Your task to perform on an android device: delete location history Image 0: 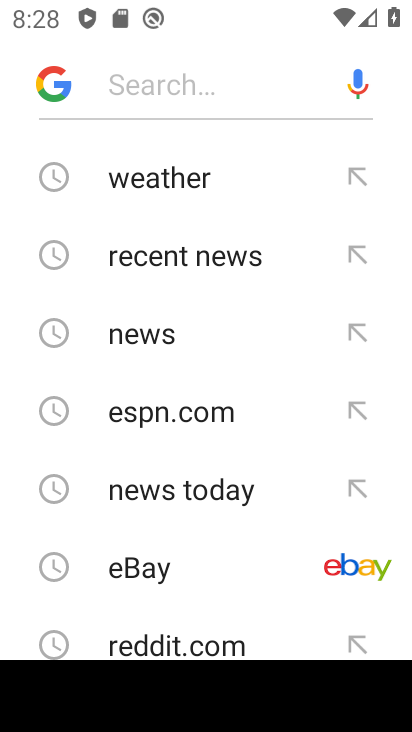
Step 0: press home button
Your task to perform on an android device: delete location history Image 1: 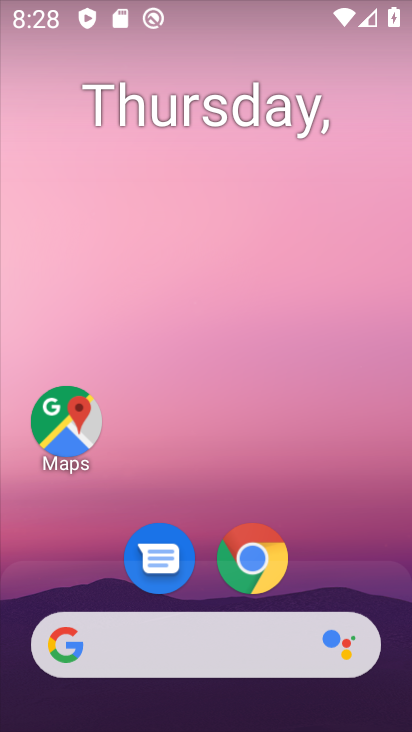
Step 1: click (56, 425)
Your task to perform on an android device: delete location history Image 2: 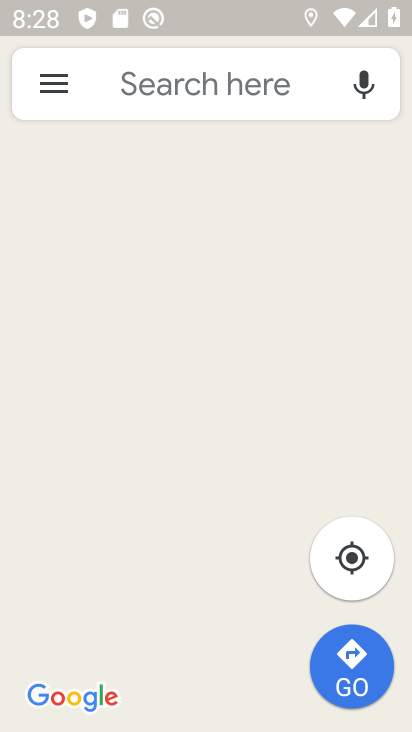
Step 2: click (61, 82)
Your task to perform on an android device: delete location history Image 3: 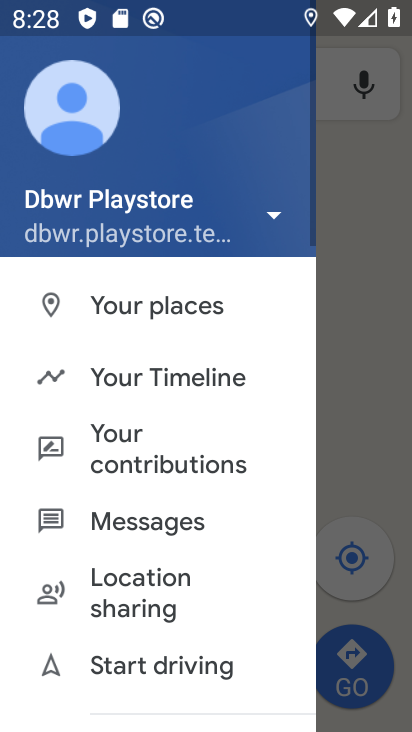
Step 3: click (142, 376)
Your task to perform on an android device: delete location history Image 4: 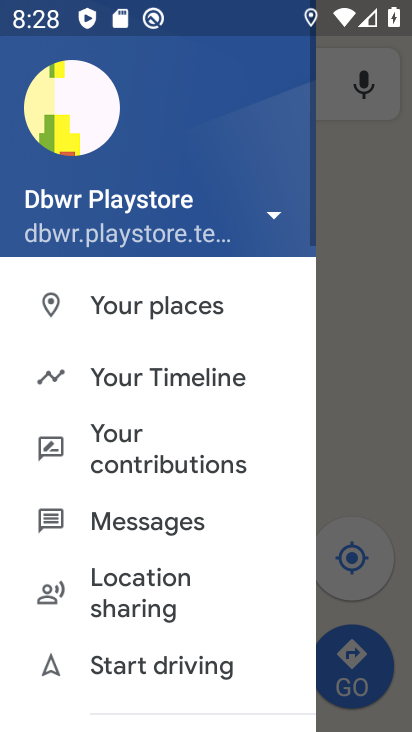
Step 4: click (142, 376)
Your task to perform on an android device: delete location history Image 5: 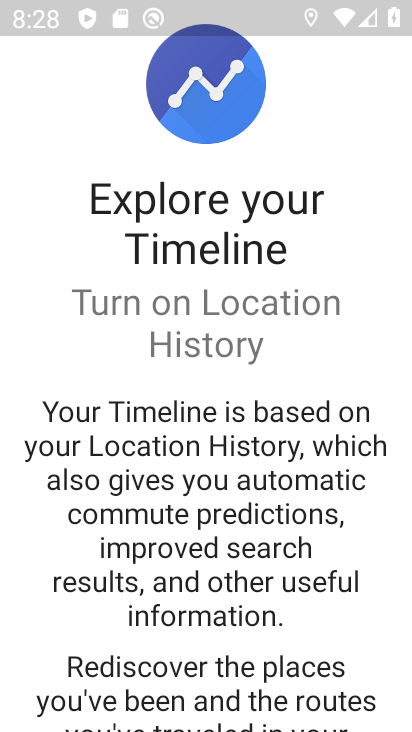
Step 5: drag from (167, 574) to (190, 194)
Your task to perform on an android device: delete location history Image 6: 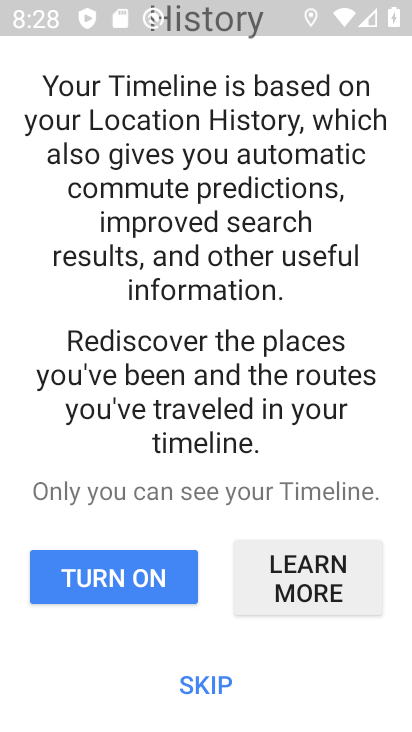
Step 6: click (192, 687)
Your task to perform on an android device: delete location history Image 7: 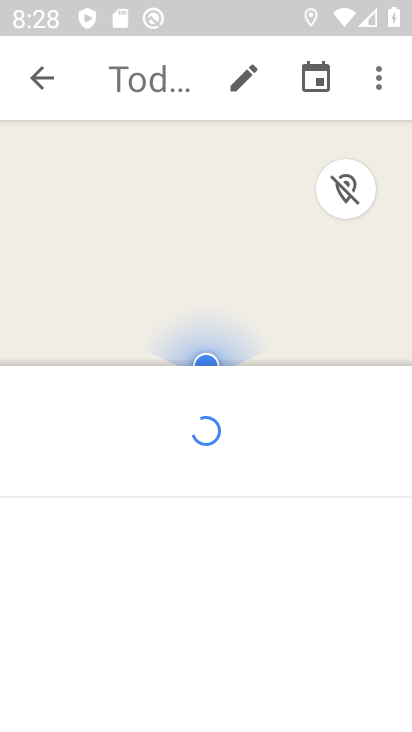
Step 7: click (377, 81)
Your task to perform on an android device: delete location history Image 8: 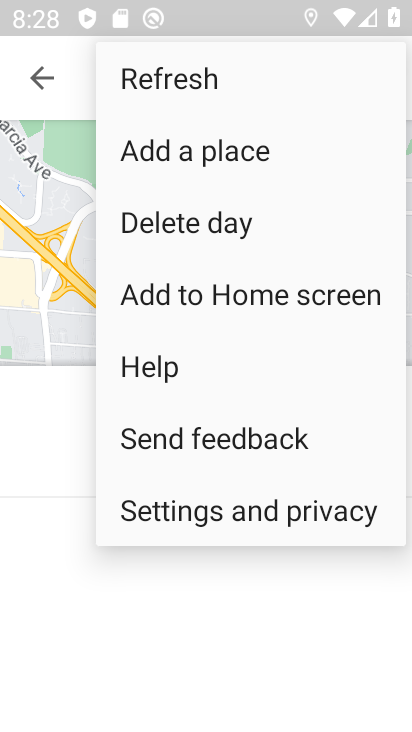
Step 8: click (272, 511)
Your task to perform on an android device: delete location history Image 9: 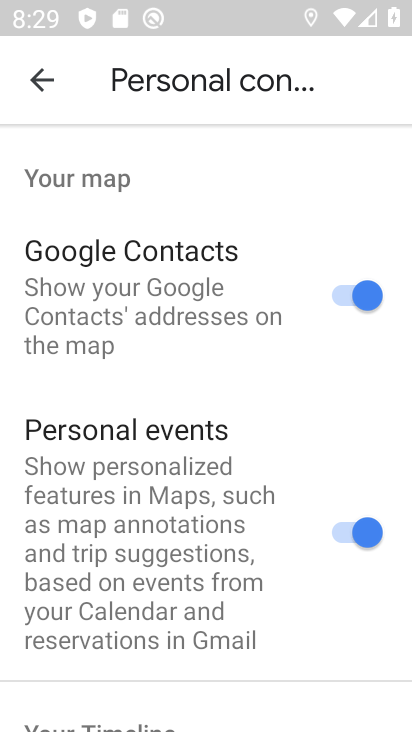
Step 9: drag from (187, 644) to (254, 328)
Your task to perform on an android device: delete location history Image 10: 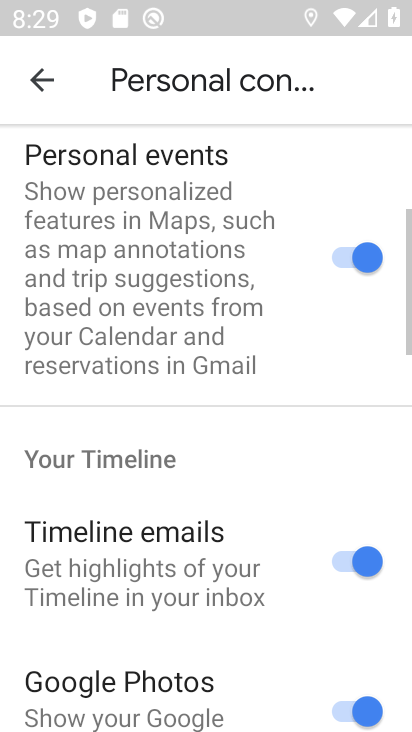
Step 10: drag from (233, 518) to (239, 273)
Your task to perform on an android device: delete location history Image 11: 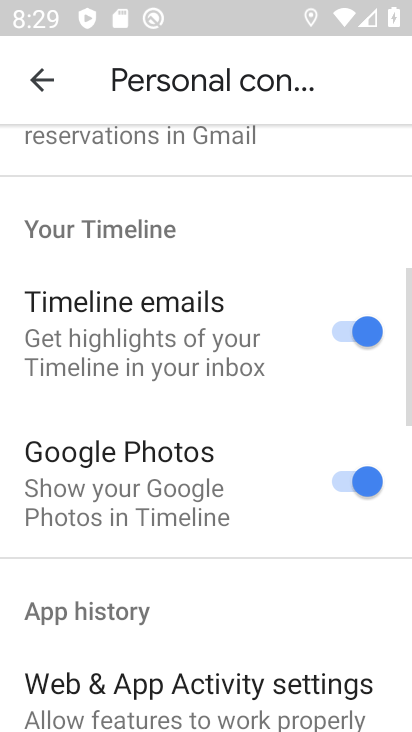
Step 11: drag from (223, 519) to (243, 324)
Your task to perform on an android device: delete location history Image 12: 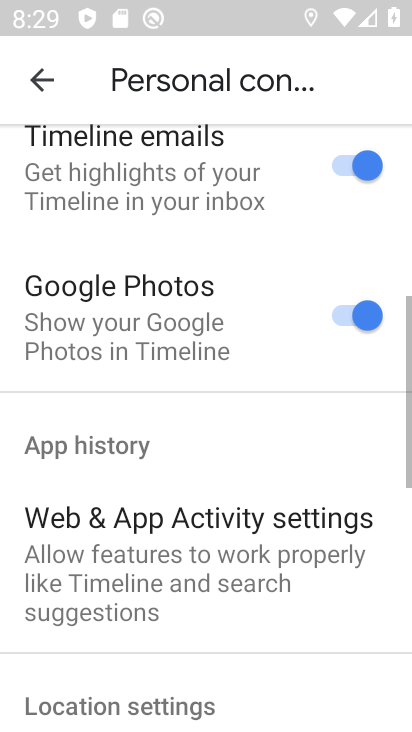
Step 12: drag from (207, 560) to (221, 303)
Your task to perform on an android device: delete location history Image 13: 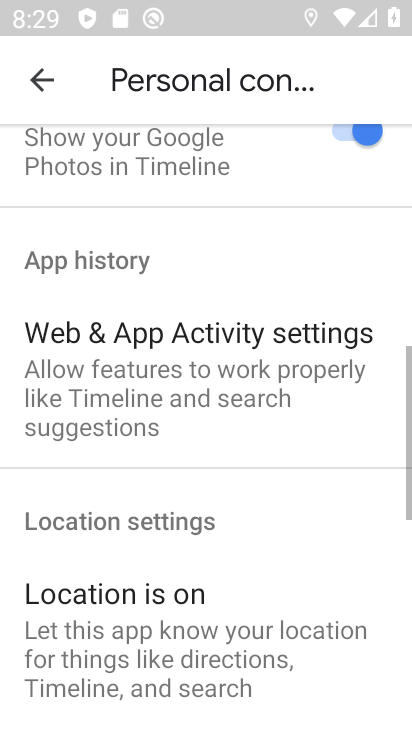
Step 13: drag from (216, 553) to (226, 315)
Your task to perform on an android device: delete location history Image 14: 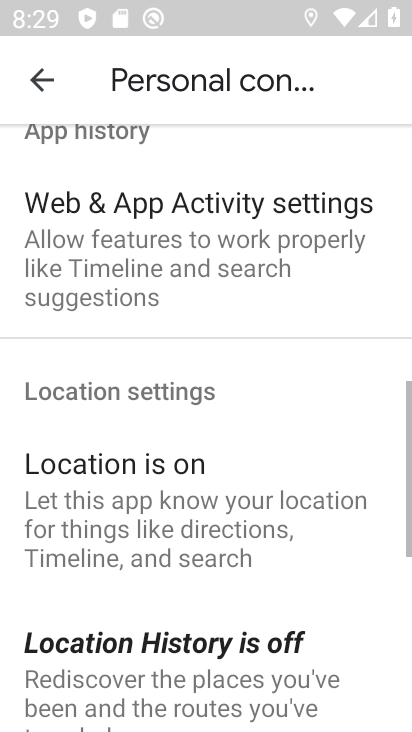
Step 14: drag from (208, 578) to (223, 359)
Your task to perform on an android device: delete location history Image 15: 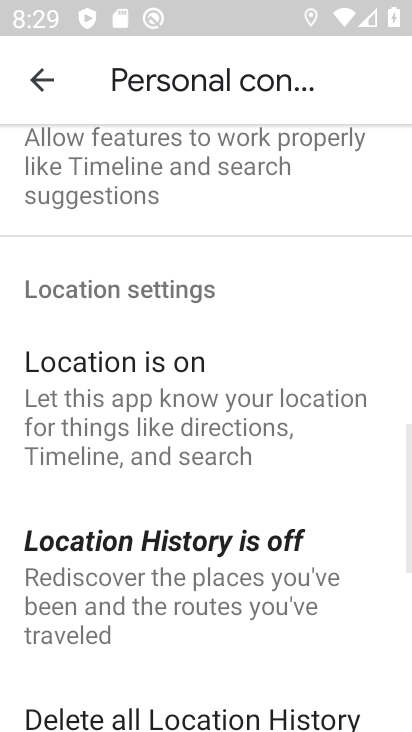
Step 15: drag from (199, 621) to (203, 372)
Your task to perform on an android device: delete location history Image 16: 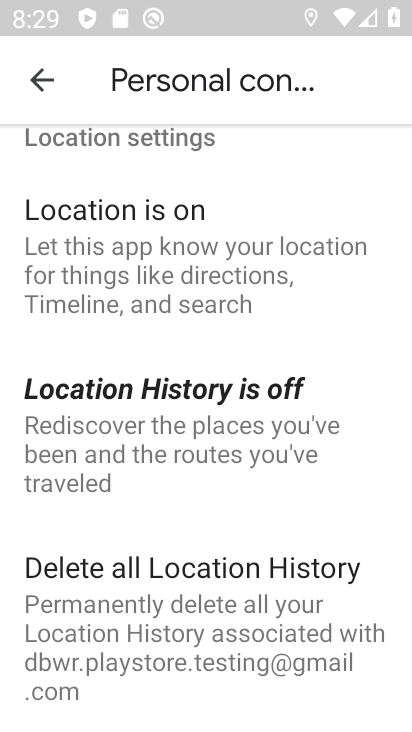
Step 16: click (199, 585)
Your task to perform on an android device: delete location history Image 17: 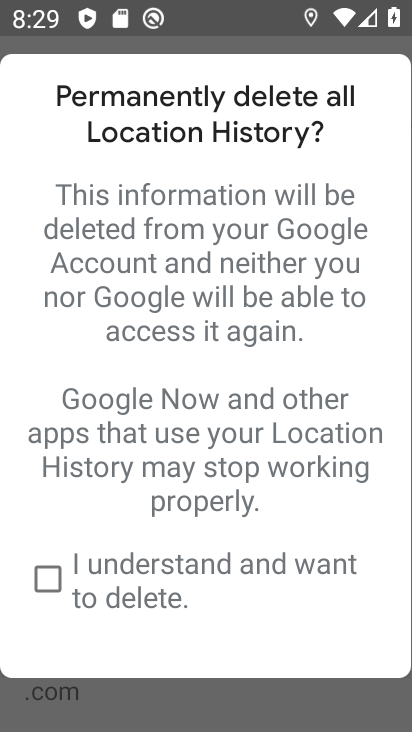
Step 17: click (153, 580)
Your task to perform on an android device: delete location history Image 18: 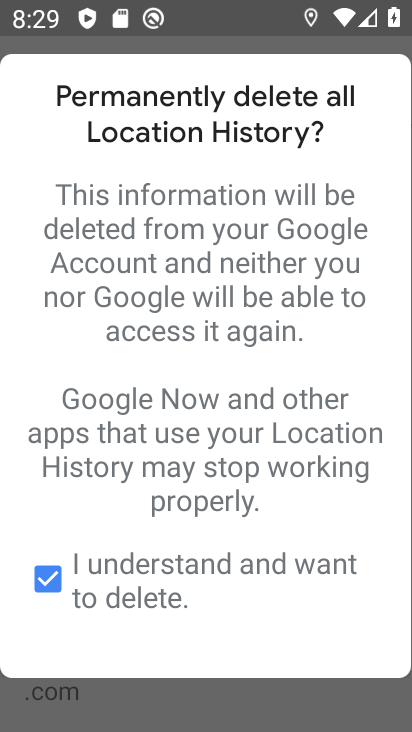
Step 18: drag from (159, 579) to (266, 274)
Your task to perform on an android device: delete location history Image 19: 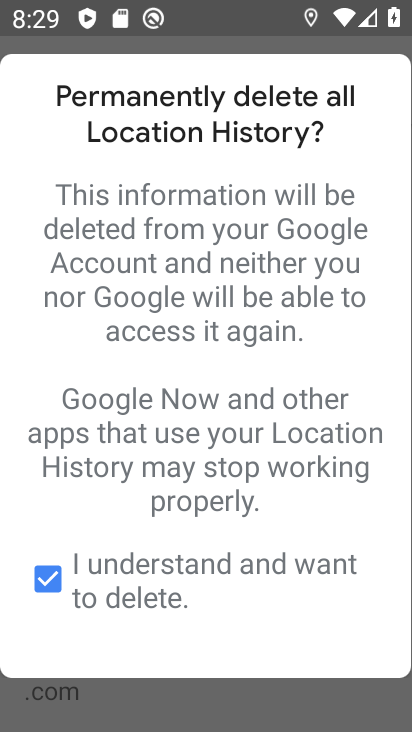
Step 19: drag from (242, 511) to (231, 239)
Your task to perform on an android device: delete location history Image 20: 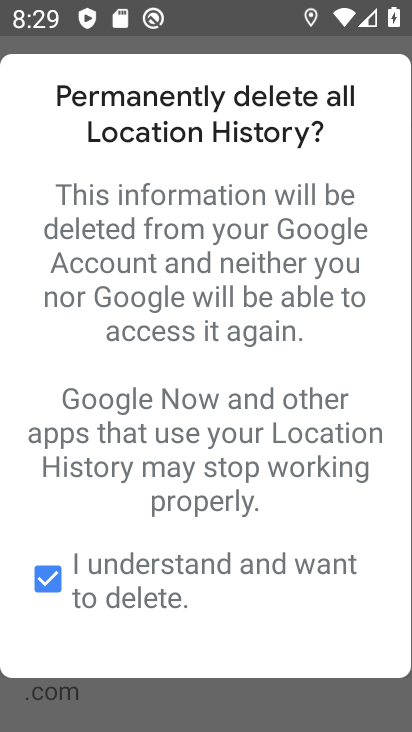
Step 20: drag from (251, 704) to (290, 336)
Your task to perform on an android device: delete location history Image 21: 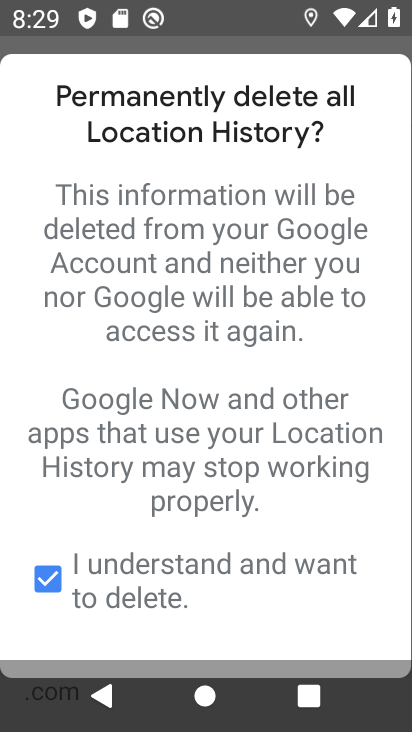
Step 21: drag from (259, 510) to (246, 298)
Your task to perform on an android device: delete location history Image 22: 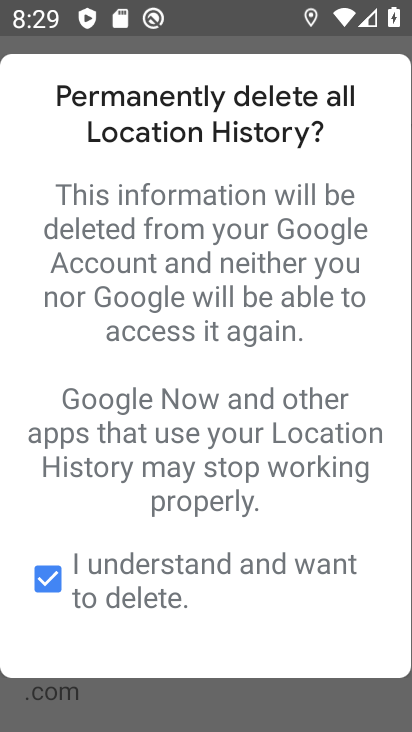
Step 22: click (341, 680)
Your task to perform on an android device: delete location history Image 23: 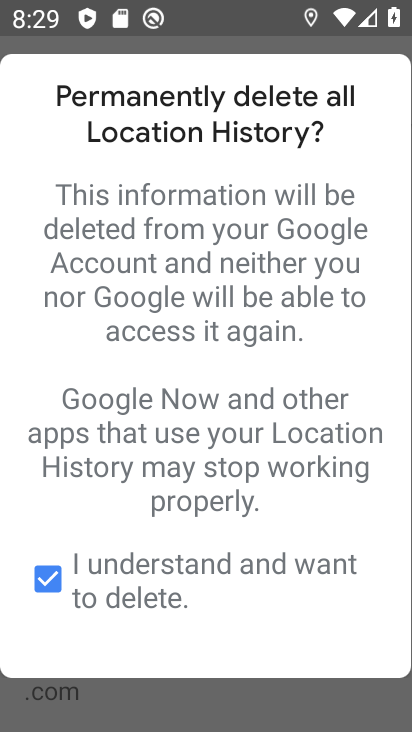
Step 23: click (342, 668)
Your task to perform on an android device: delete location history Image 24: 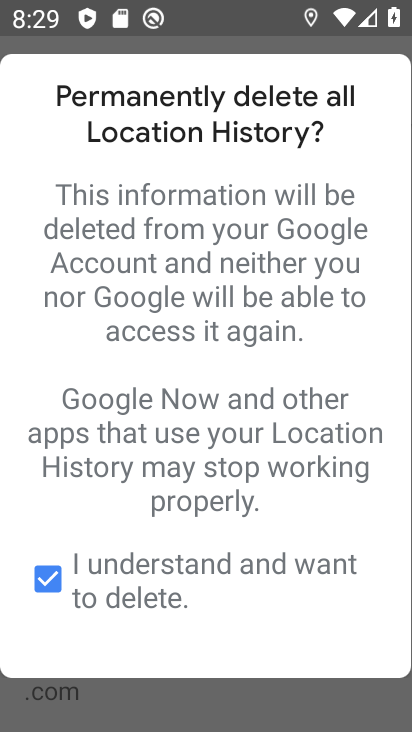
Step 24: click (344, 688)
Your task to perform on an android device: delete location history Image 25: 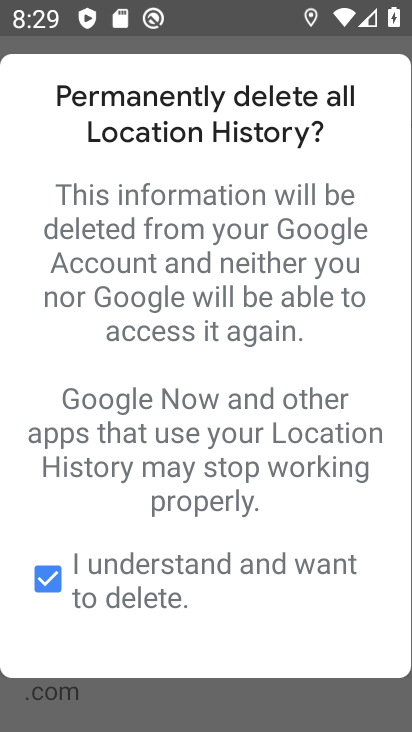
Step 25: click (351, 706)
Your task to perform on an android device: delete location history Image 26: 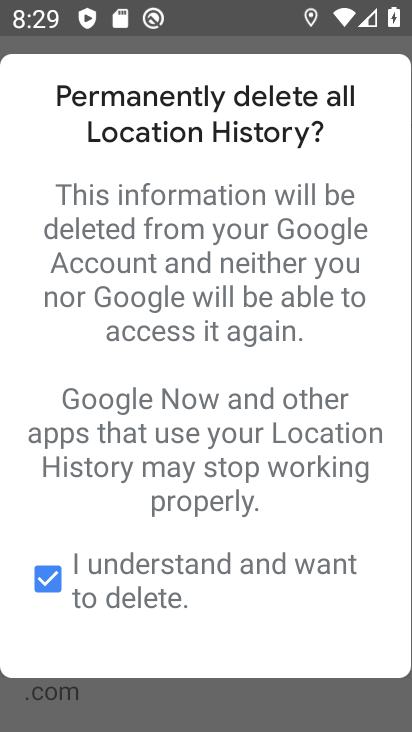
Step 26: click (338, 711)
Your task to perform on an android device: delete location history Image 27: 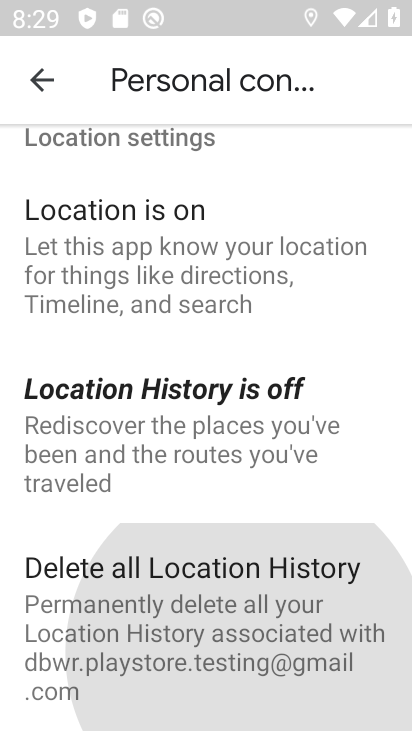
Step 27: click (324, 716)
Your task to perform on an android device: delete location history Image 28: 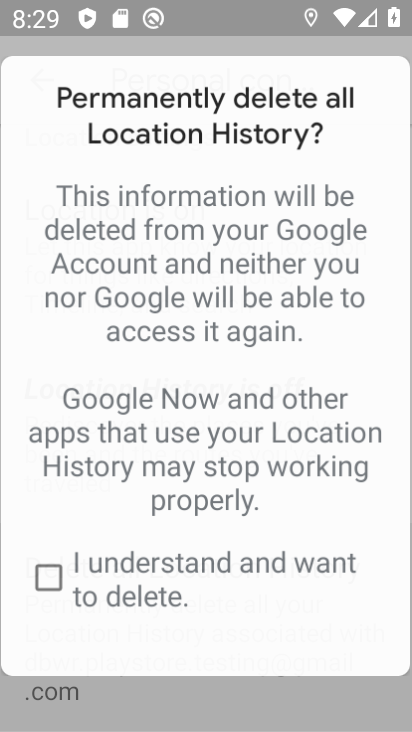
Step 28: click (308, 671)
Your task to perform on an android device: delete location history Image 29: 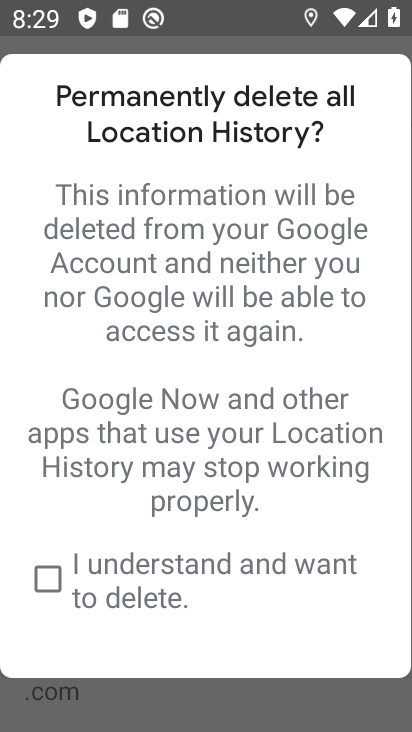
Step 29: click (53, 575)
Your task to perform on an android device: delete location history Image 30: 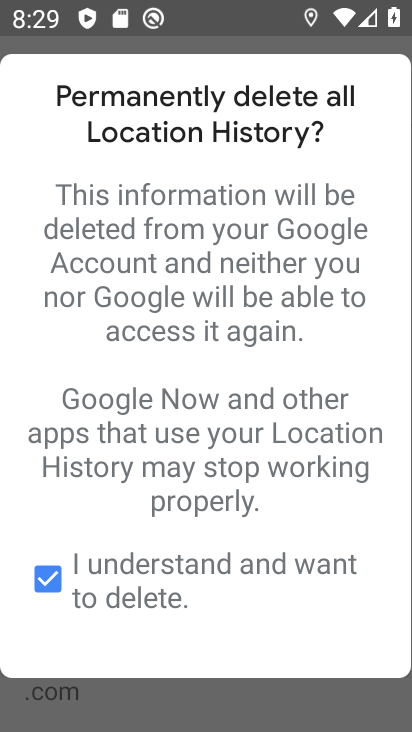
Step 30: click (331, 682)
Your task to perform on an android device: delete location history Image 31: 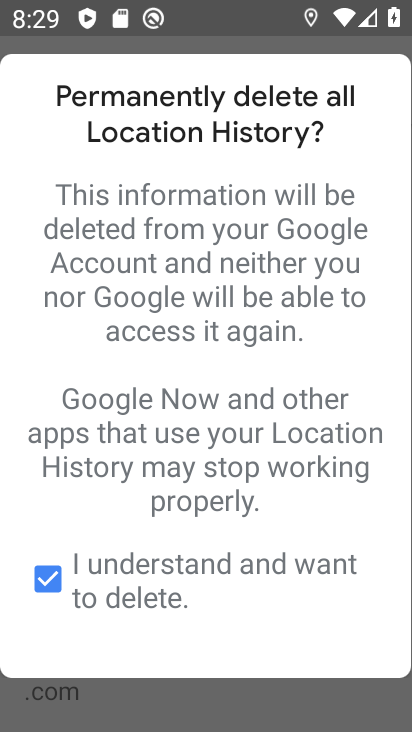
Step 31: click (331, 671)
Your task to perform on an android device: delete location history Image 32: 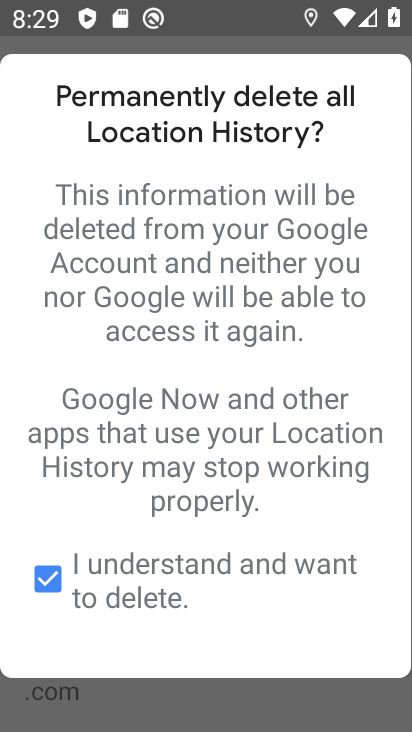
Step 32: drag from (275, 579) to (270, 356)
Your task to perform on an android device: delete location history Image 33: 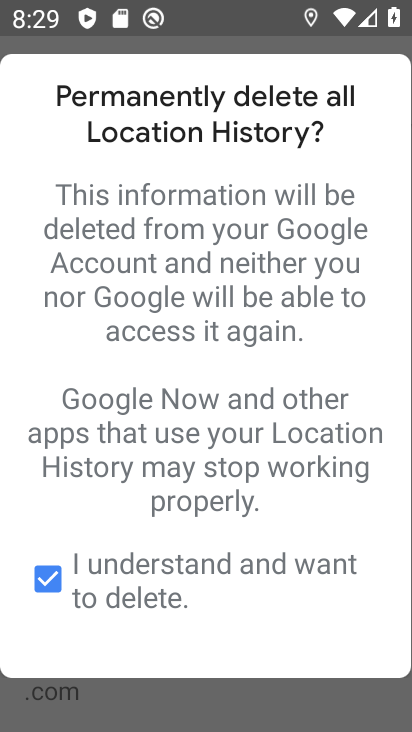
Step 33: drag from (271, 604) to (290, 404)
Your task to perform on an android device: delete location history Image 34: 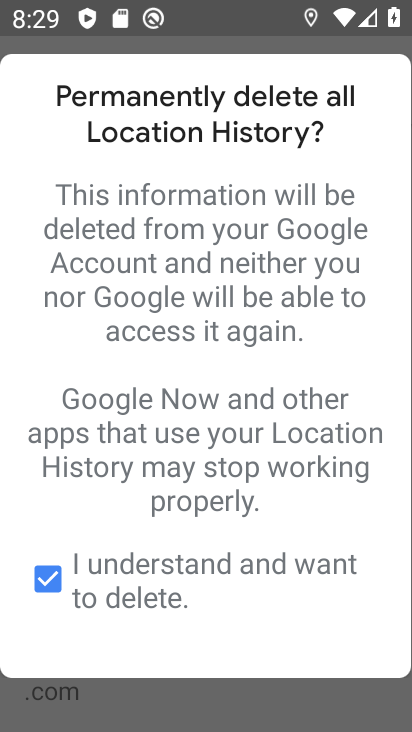
Step 34: click (328, 682)
Your task to perform on an android device: delete location history Image 35: 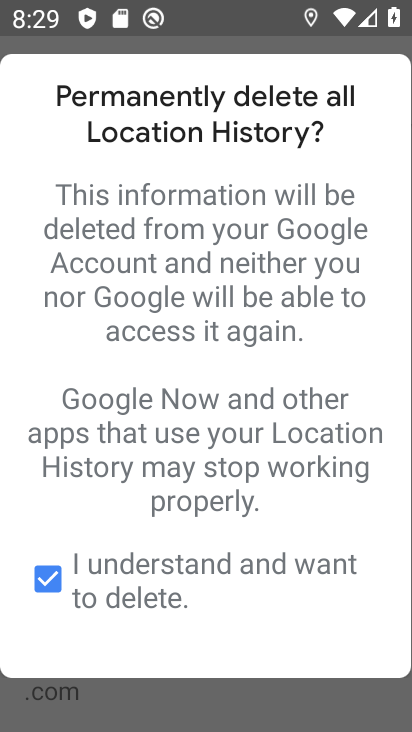
Step 35: click (350, 681)
Your task to perform on an android device: delete location history Image 36: 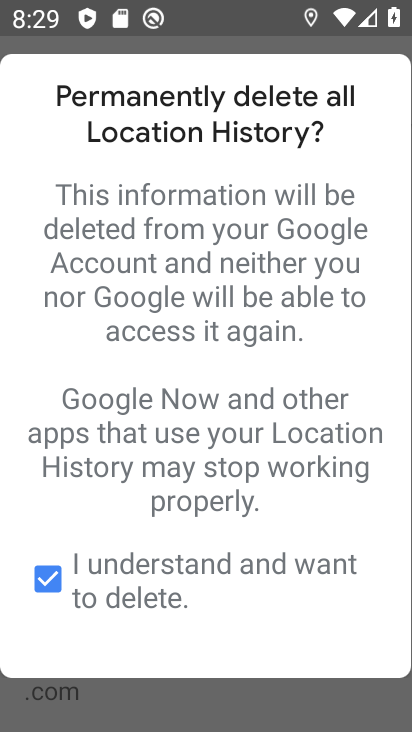
Step 36: click (287, 663)
Your task to perform on an android device: delete location history Image 37: 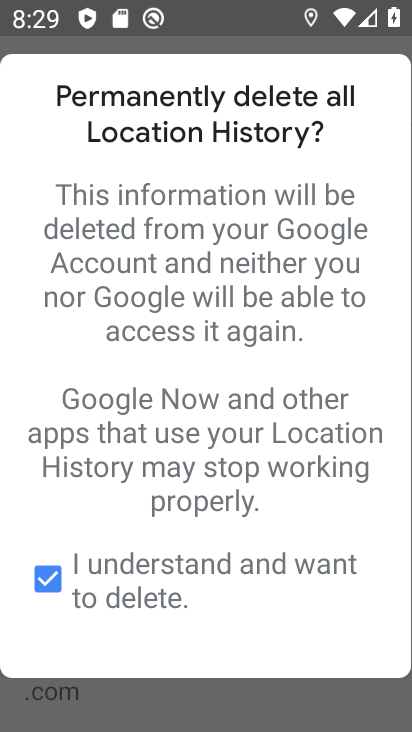
Step 37: click (247, 659)
Your task to perform on an android device: delete location history Image 38: 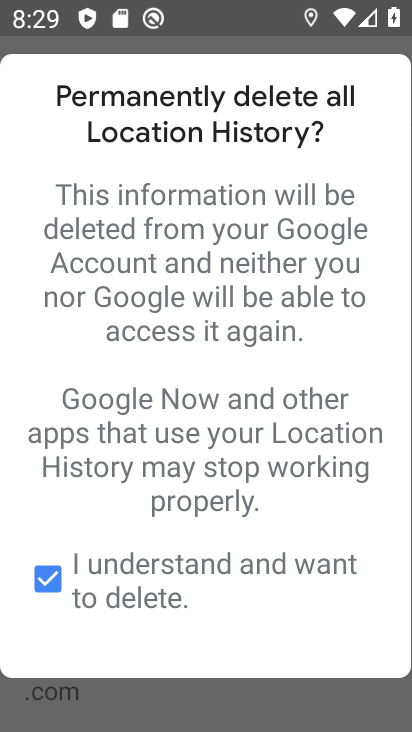
Step 38: click (325, 663)
Your task to perform on an android device: delete location history Image 39: 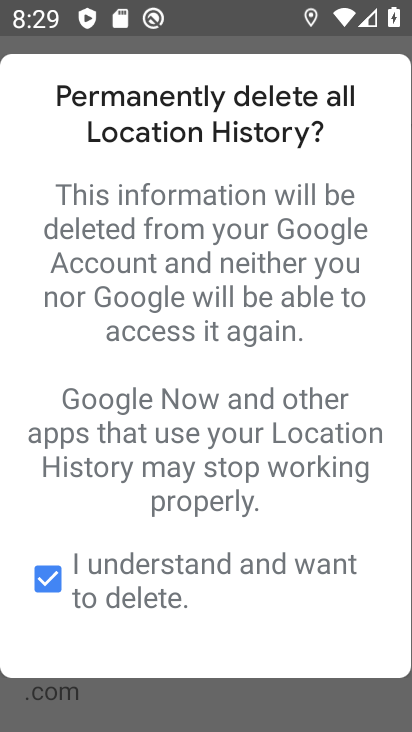
Step 39: drag from (360, 664) to (267, 395)
Your task to perform on an android device: delete location history Image 40: 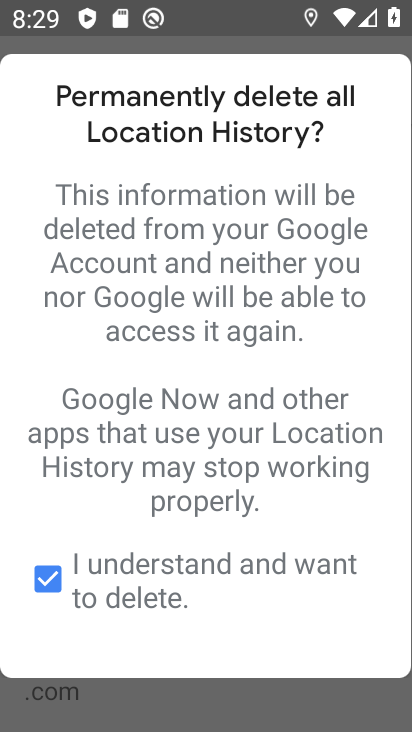
Step 40: drag from (227, 492) to (272, 199)
Your task to perform on an android device: delete location history Image 41: 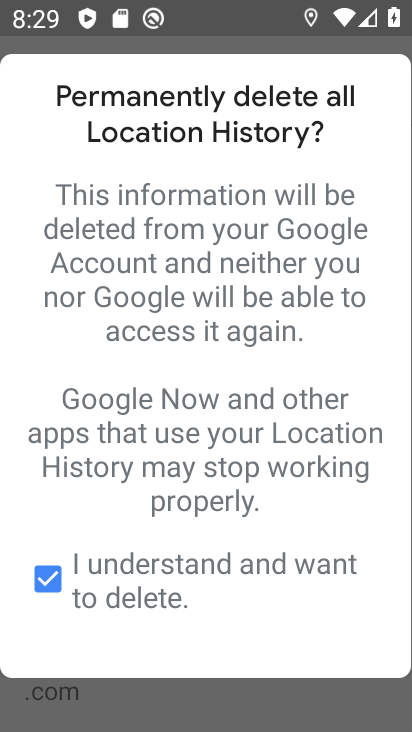
Step 41: click (343, 674)
Your task to perform on an android device: delete location history Image 42: 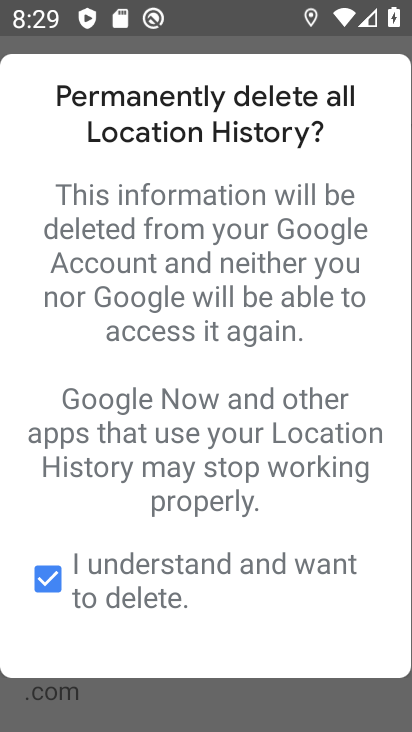
Step 42: click (345, 707)
Your task to perform on an android device: delete location history Image 43: 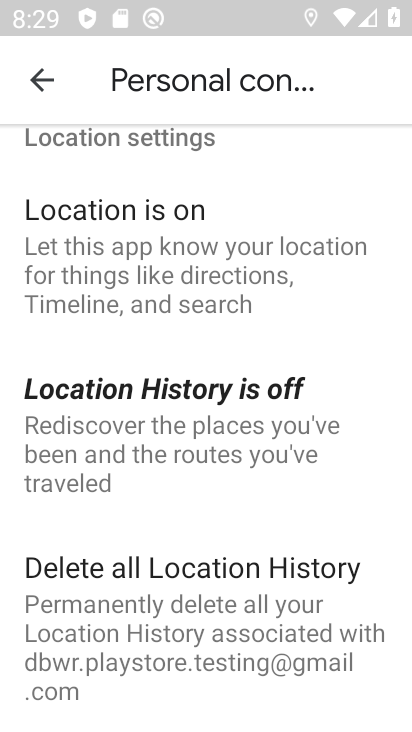
Step 43: task complete